Your task to perform on an android device: install app "Contacts" Image 0: 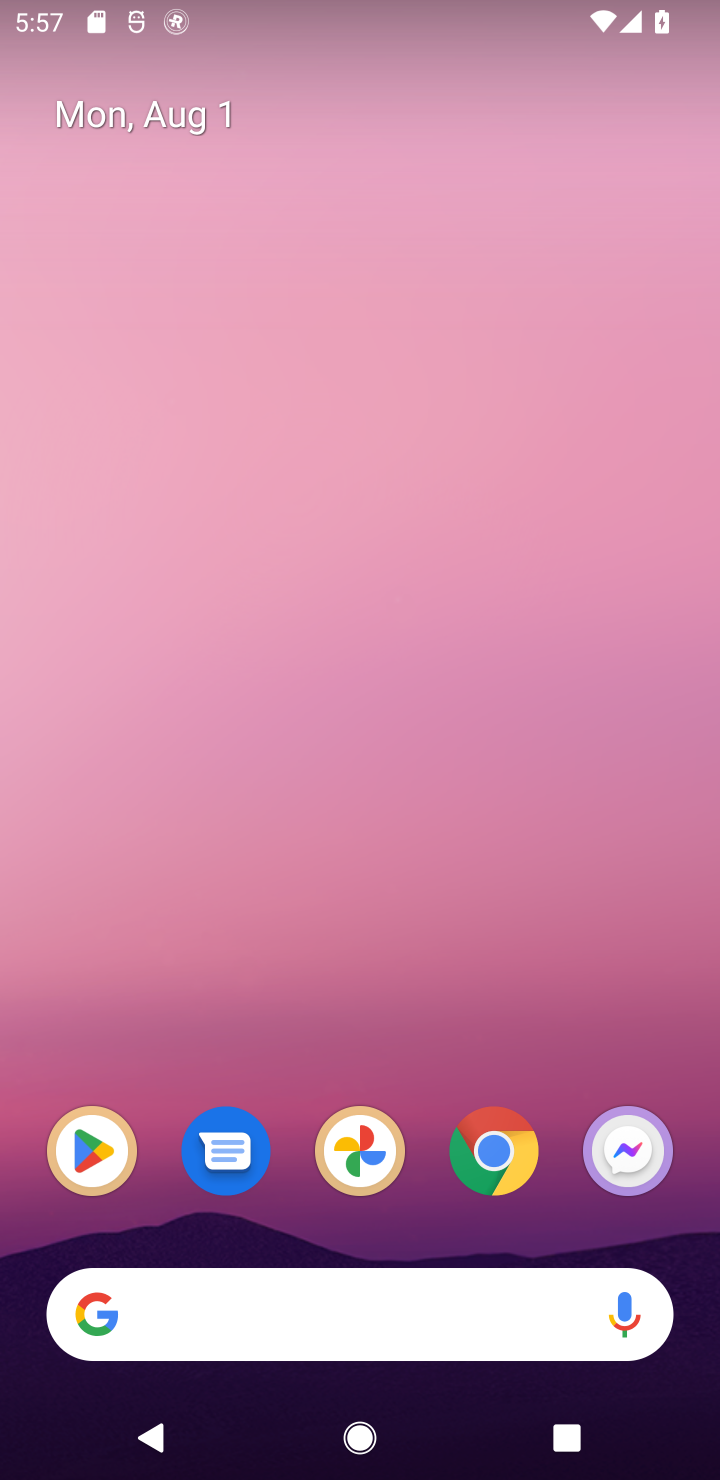
Step 0: click (101, 1160)
Your task to perform on an android device: install app "Contacts" Image 1: 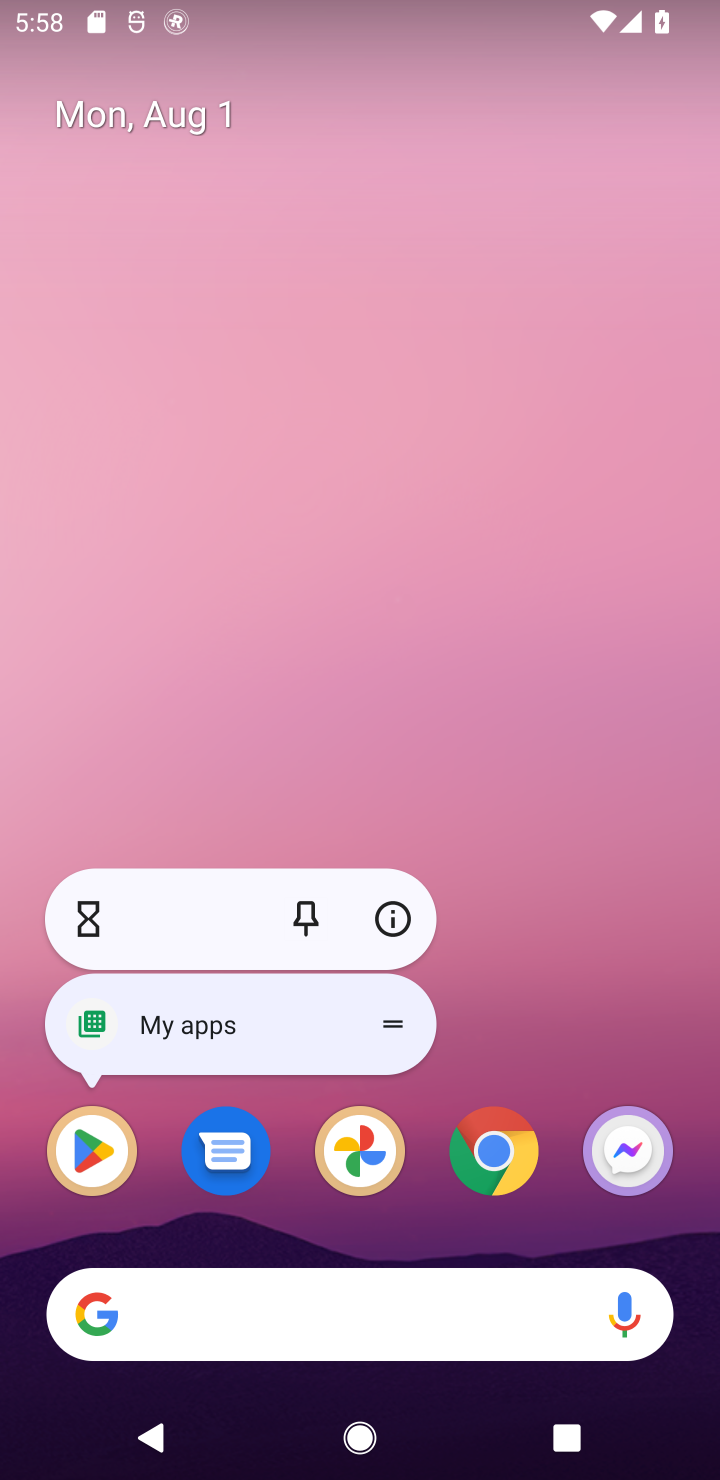
Step 1: click (101, 1160)
Your task to perform on an android device: install app "Contacts" Image 2: 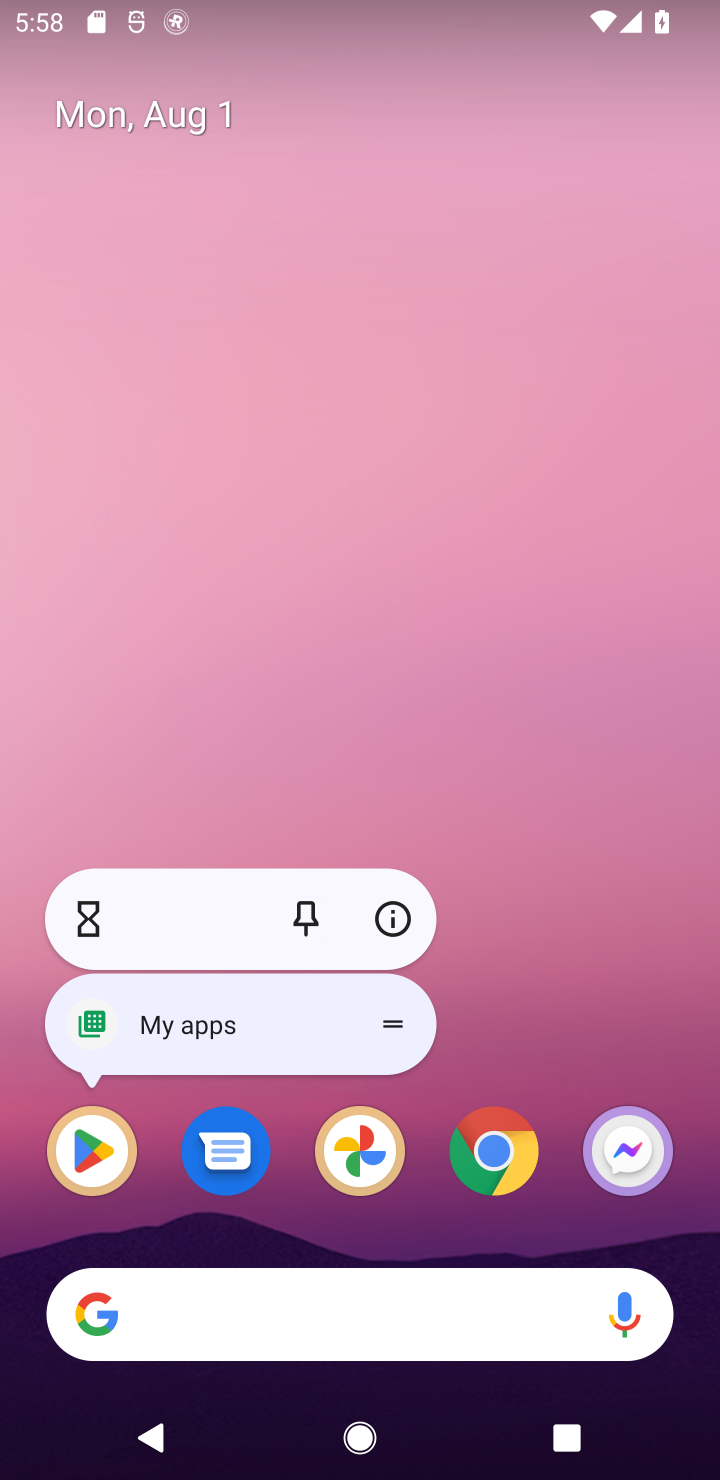
Step 2: click (101, 1160)
Your task to perform on an android device: install app "Contacts" Image 3: 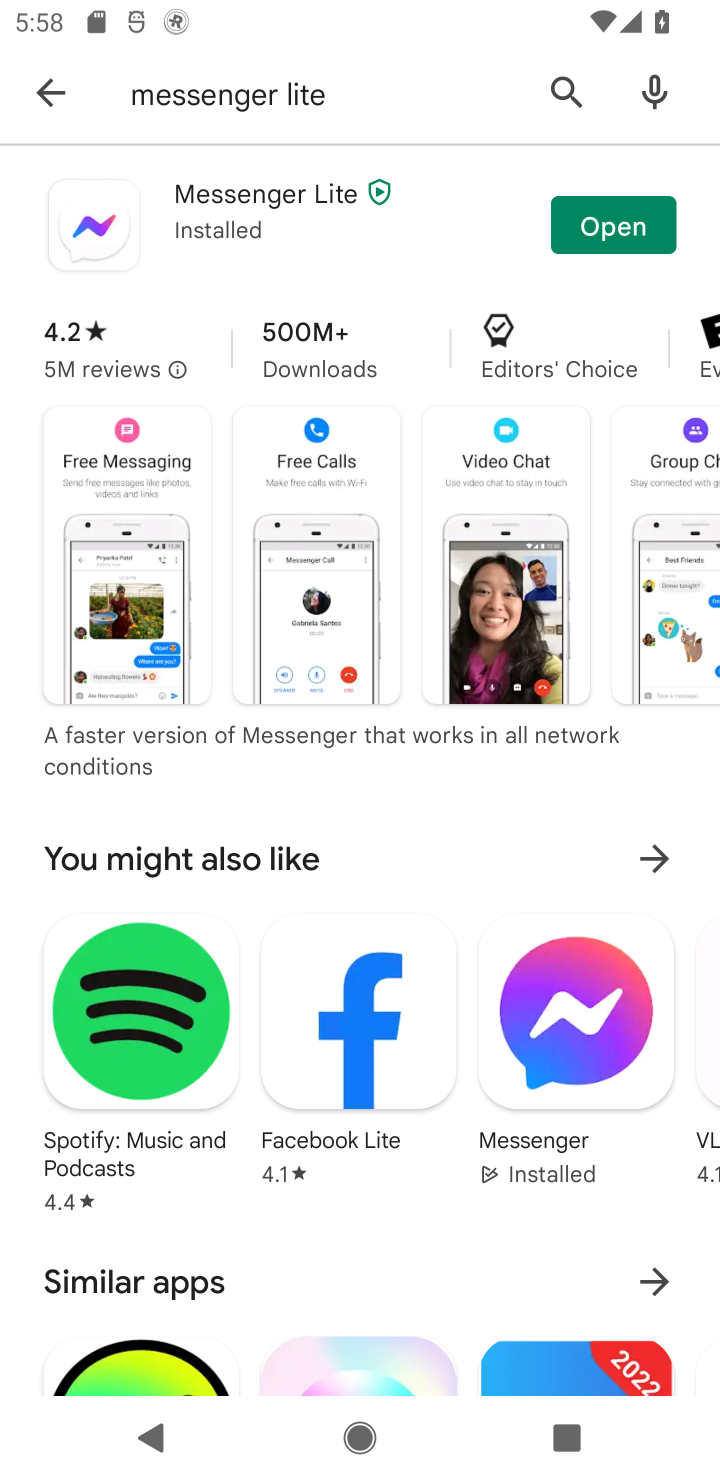
Step 3: click (575, 81)
Your task to perform on an android device: install app "Contacts" Image 4: 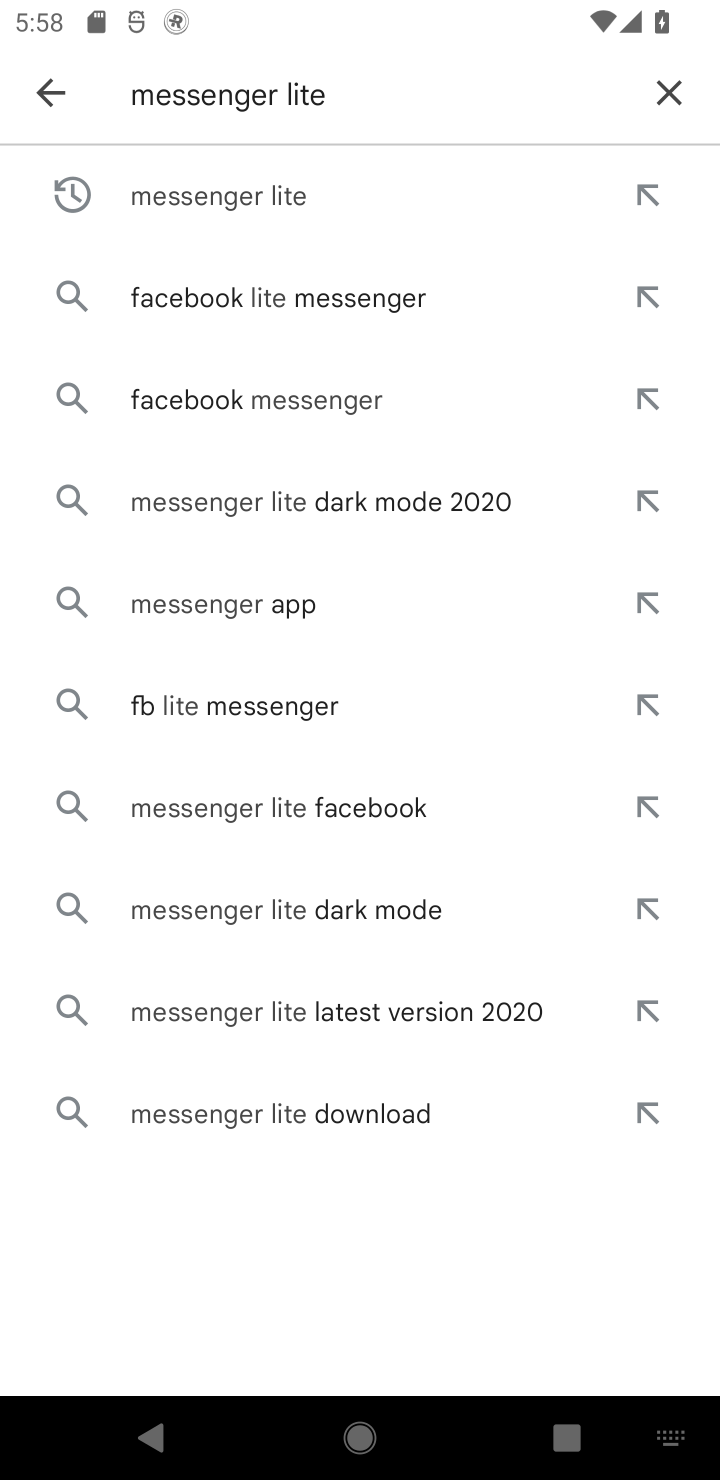
Step 4: click (662, 110)
Your task to perform on an android device: install app "Contacts" Image 5: 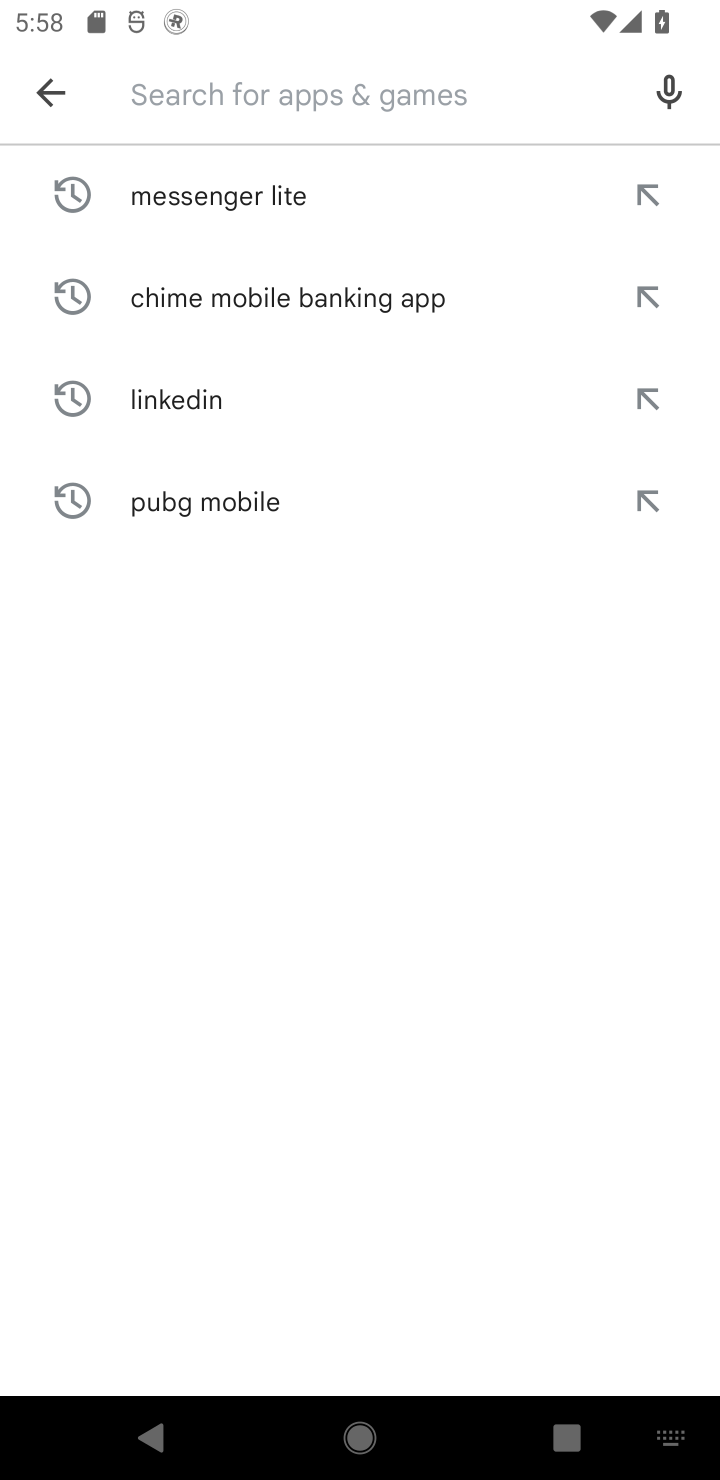
Step 5: type "Contacts"
Your task to perform on an android device: install app "Contacts" Image 6: 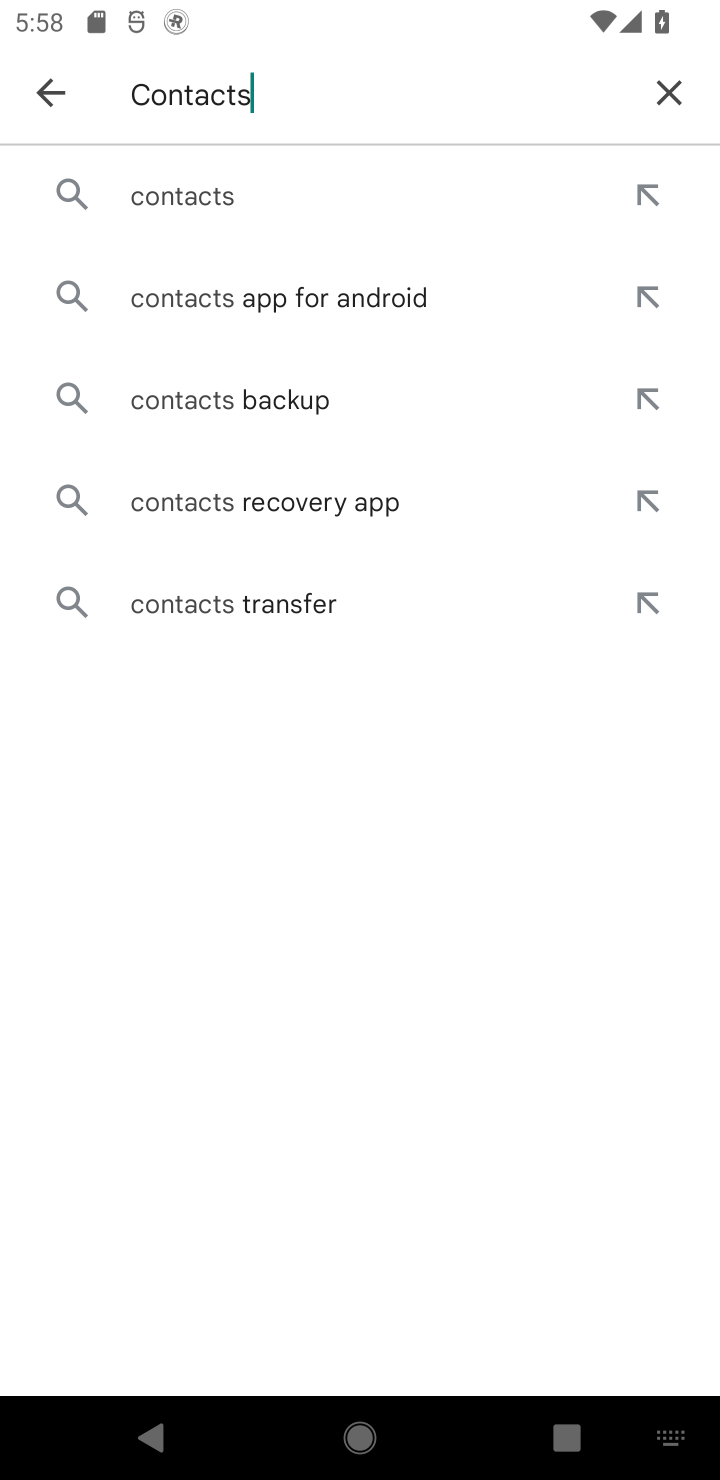
Step 6: click (225, 203)
Your task to perform on an android device: install app "Contacts" Image 7: 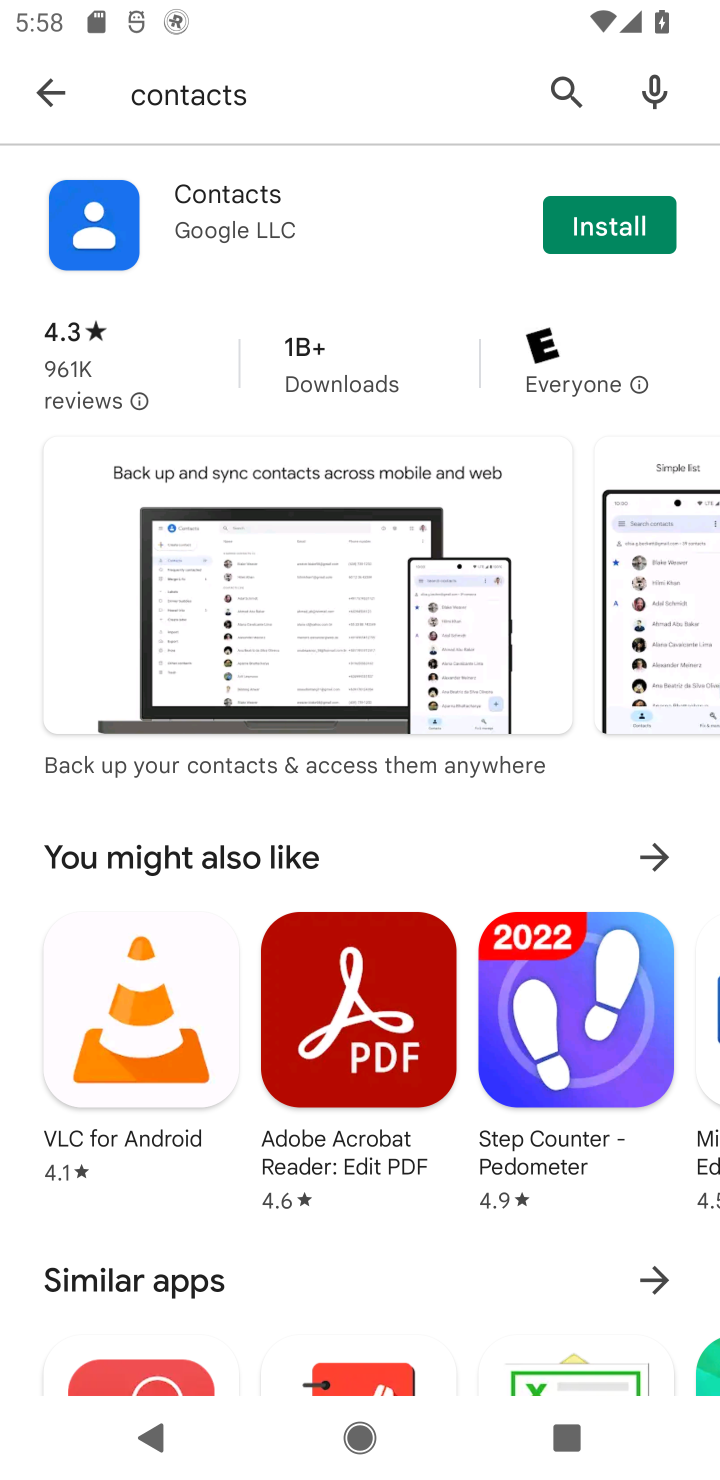
Step 7: click (628, 250)
Your task to perform on an android device: install app "Contacts" Image 8: 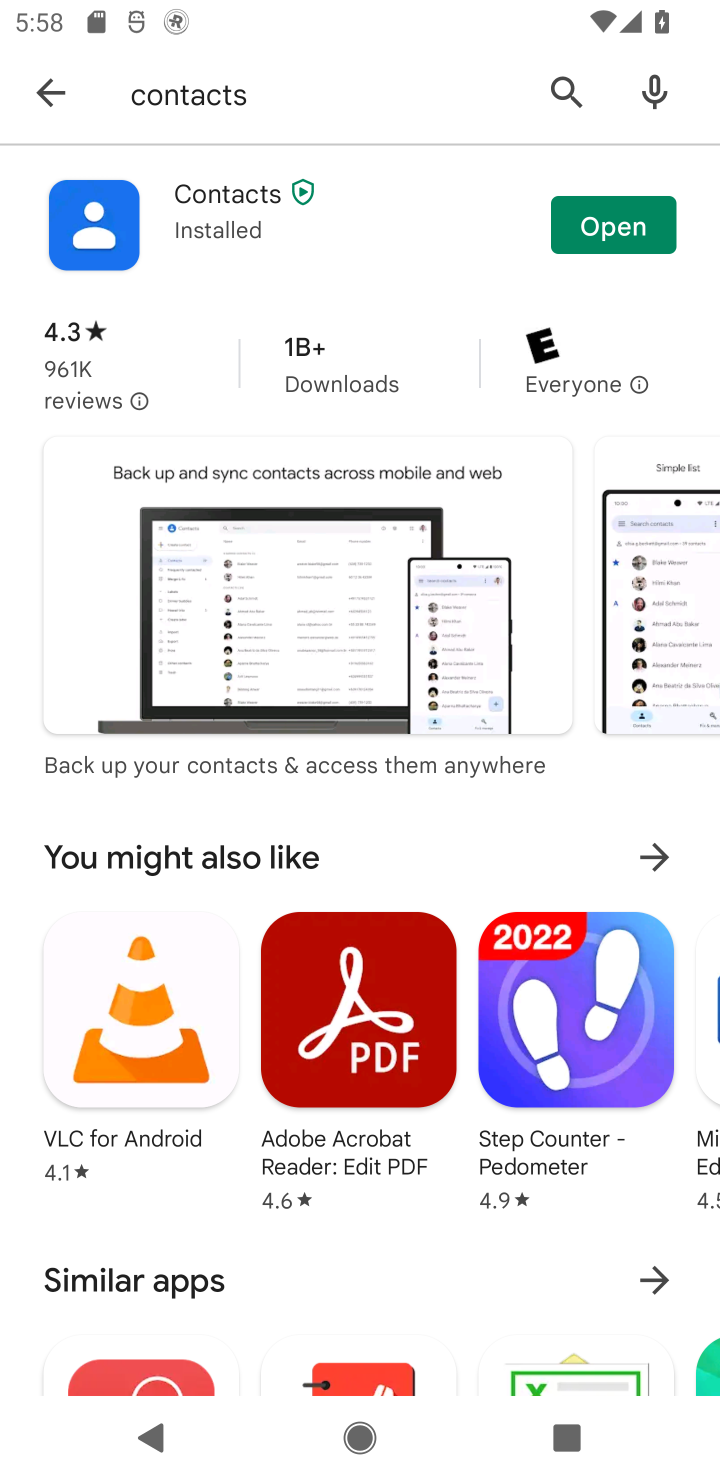
Step 8: task complete